Your task to perform on an android device: Open Android settings Image 0: 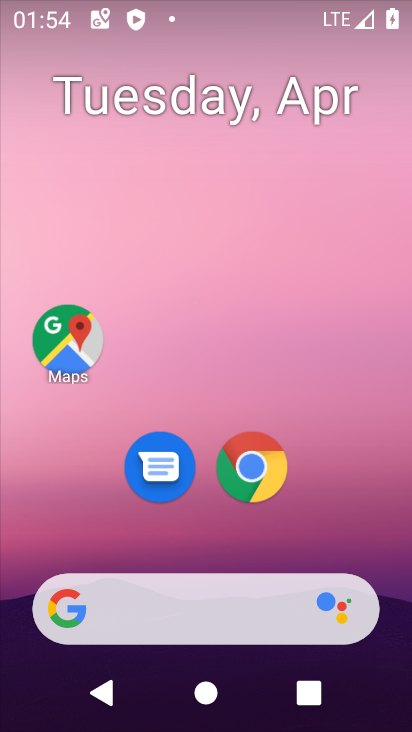
Step 0: drag from (348, 516) to (337, 89)
Your task to perform on an android device: Open Android settings Image 1: 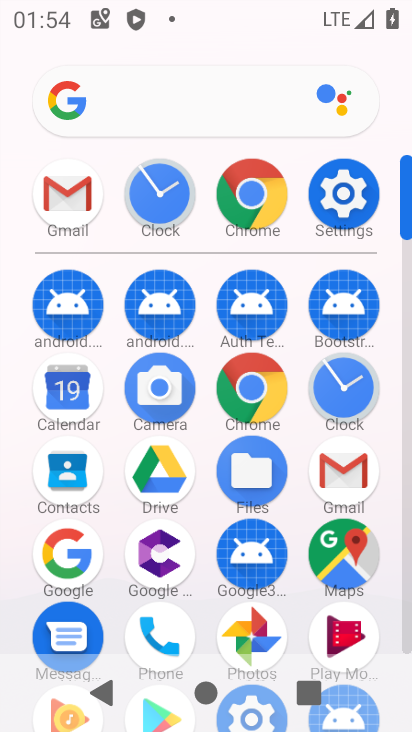
Step 1: click (349, 200)
Your task to perform on an android device: Open Android settings Image 2: 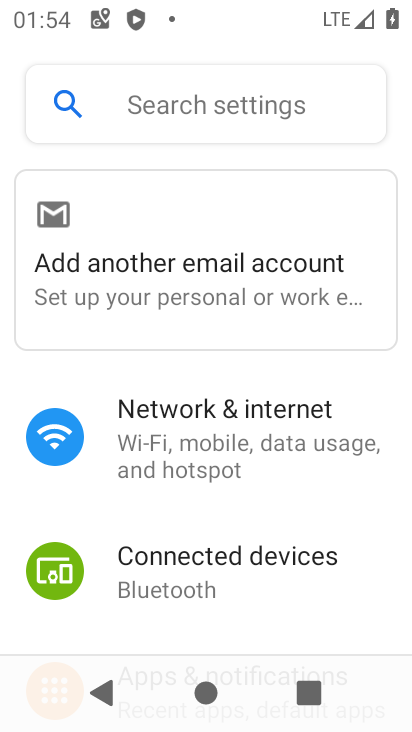
Step 2: drag from (386, 582) to (403, 318)
Your task to perform on an android device: Open Android settings Image 3: 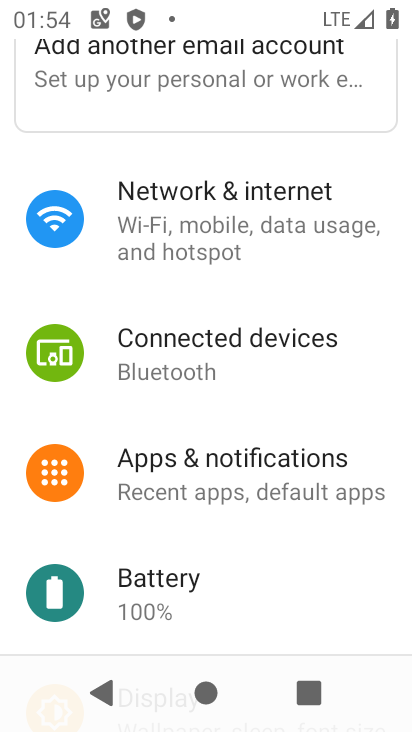
Step 3: drag from (357, 578) to (383, 353)
Your task to perform on an android device: Open Android settings Image 4: 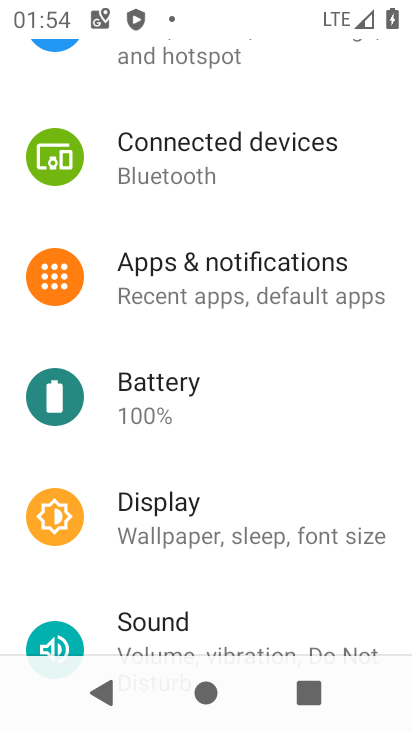
Step 4: drag from (359, 592) to (373, 373)
Your task to perform on an android device: Open Android settings Image 5: 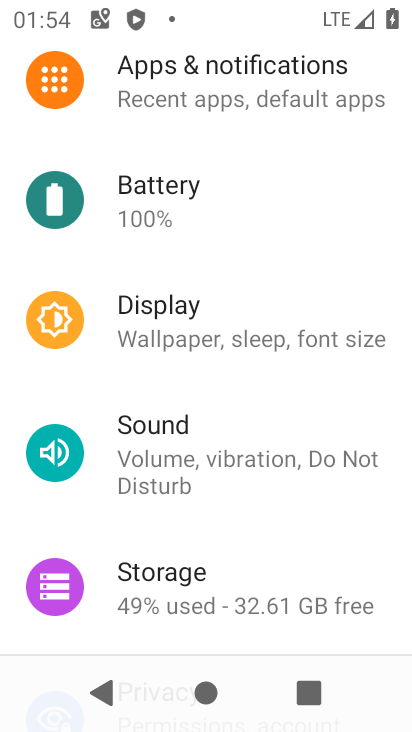
Step 5: drag from (377, 627) to (376, 388)
Your task to perform on an android device: Open Android settings Image 6: 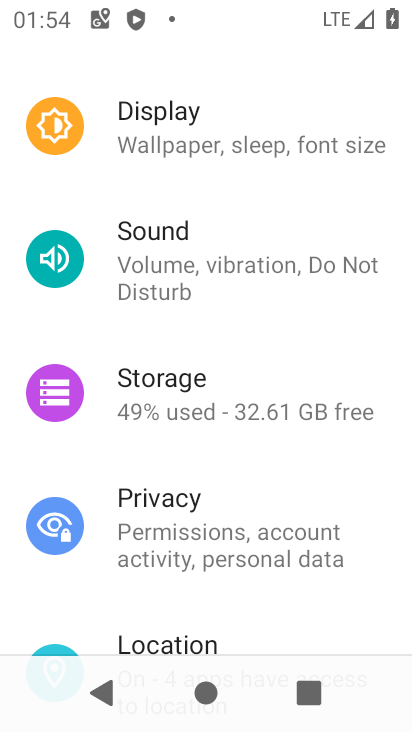
Step 6: drag from (360, 578) to (372, 341)
Your task to perform on an android device: Open Android settings Image 7: 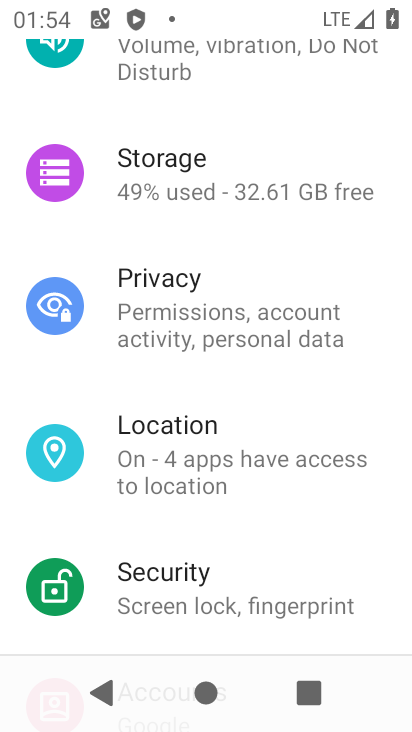
Step 7: drag from (374, 551) to (386, 343)
Your task to perform on an android device: Open Android settings Image 8: 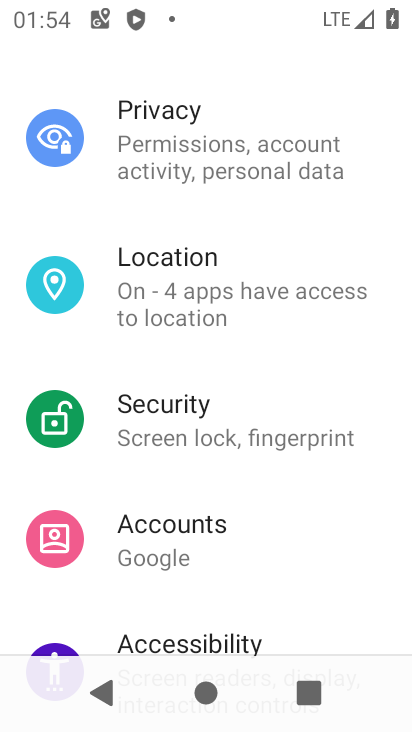
Step 8: drag from (354, 565) to (370, 347)
Your task to perform on an android device: Open Android settings Image 9: 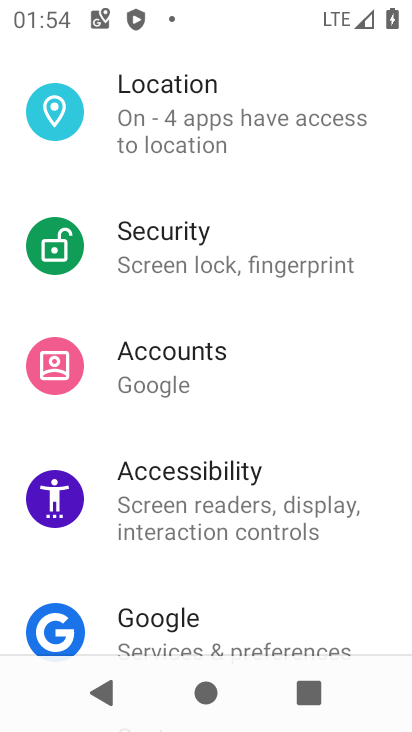
Step 9: drag from (325, 572) to (355, 363)
Your task to perform on an android device: Open Android settings Image 10: 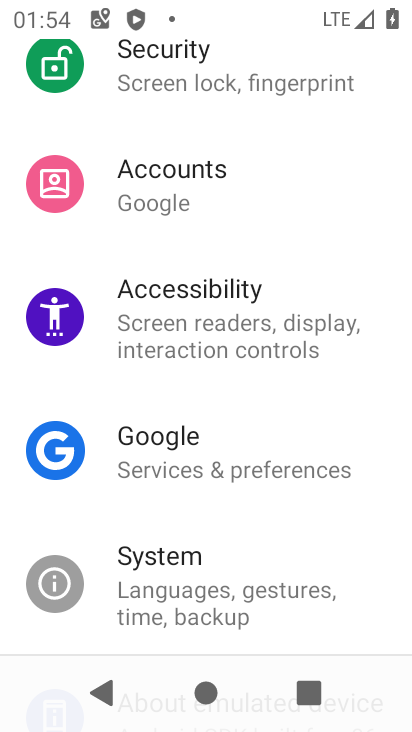
Step 10: drag from (362, 601) to (378, 379)
Your task to perform on an android device: Open Android settings Image 11: 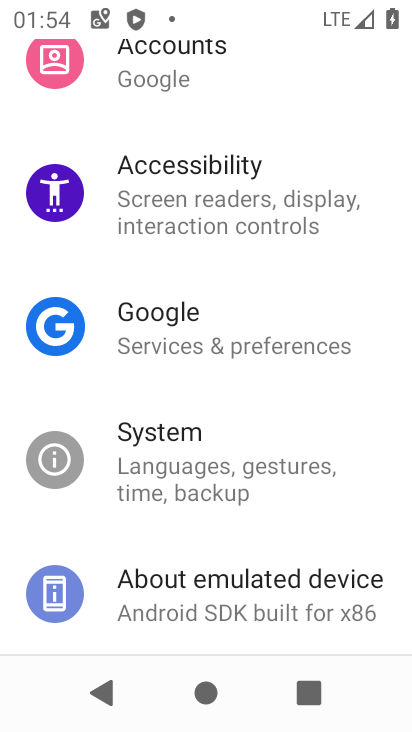
Step 11: click (238, 467)
Your task to perform on an android device: Open Android settings Image 12: 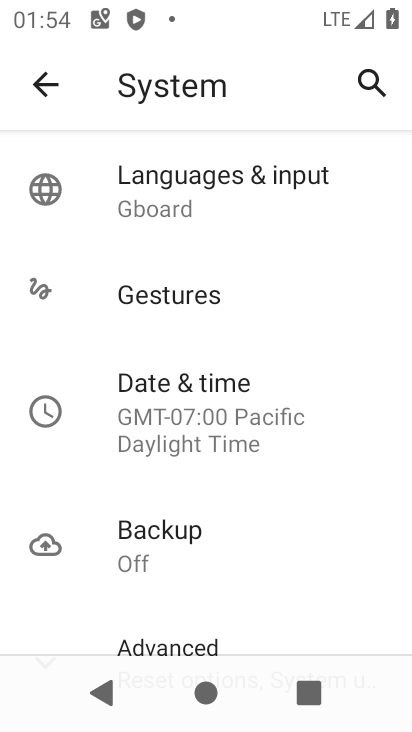
Step 12: drag from (348, 513) to (332, 284)
Your task to perform on an android device: Open Android settings Image 13: 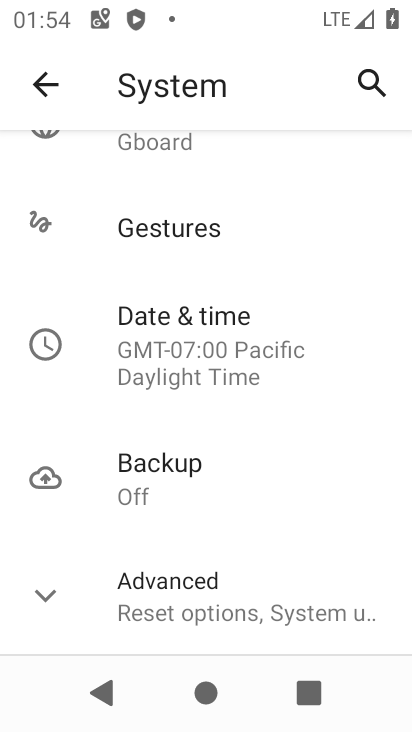
Step 13: click (233, 602)
Your task to perform on an android device: Open Android settings Image 14: 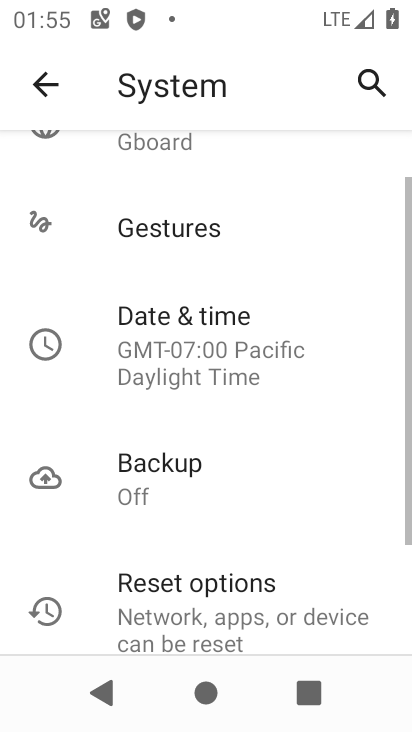
Step 14: drag from (328, 543) to (344, 270)
Your task to perform on an android device: Open Android settings Image 15: 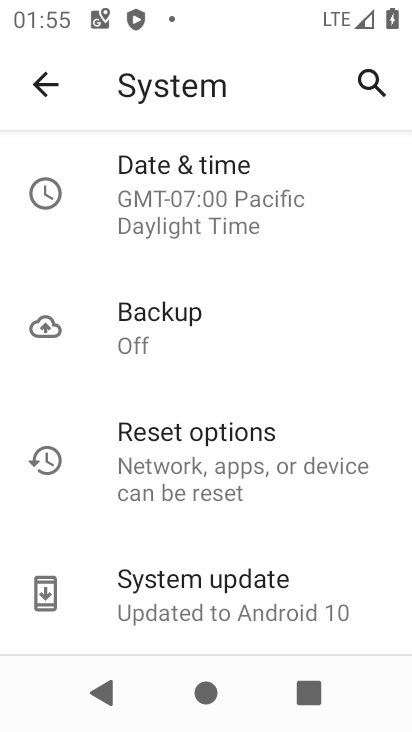
Step 15: click (256, 597)
Your task to perform on an android device: Open Android settings Image 16: 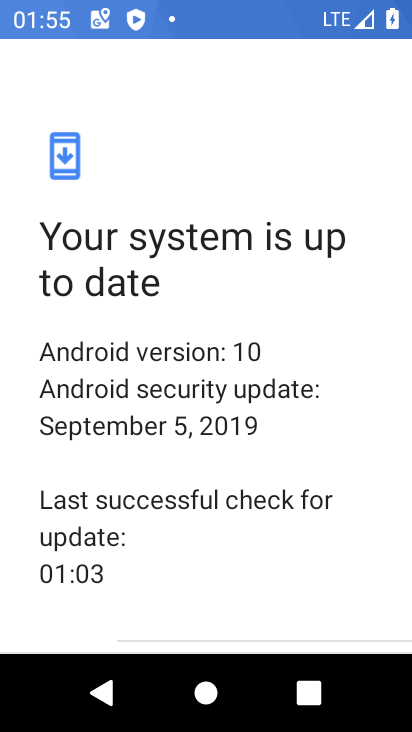
Step 16: task complete